Your task to perform on an android device: Open a new incognito tab in the chrome app Image 0: 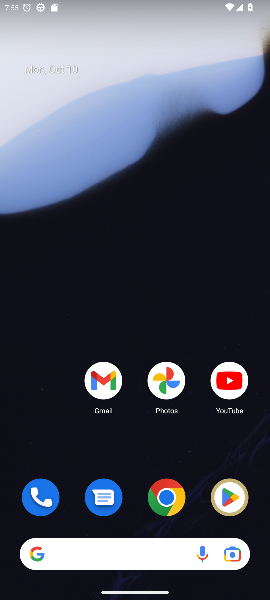
Step 0: drag from (98, 502) to (102, 201)
Your task to perform on an android device: Open a new incognito tab in the chrome app Image 1: 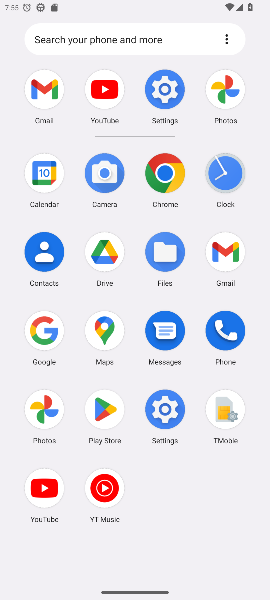
Step 1: click (166, 169)
Your task to perform on an android device: Open a new incognito tab in the chrome app Image 2: 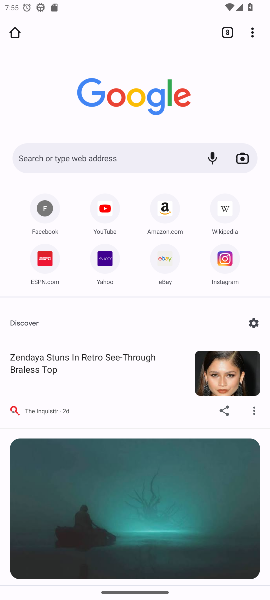
Step 2: click (261, 39)
Your task to perform on an android device: Open a new incognito tab in the chrome app Image 3: 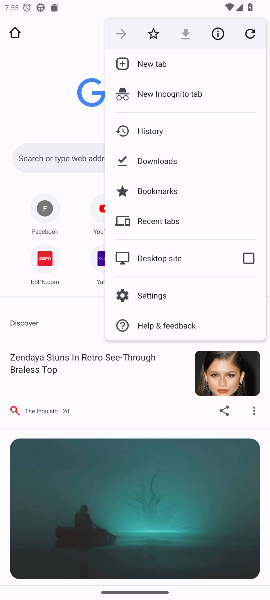
Step 3: click (170, 57)
Your task to perform on an android device: Open a new incognito tab in the chrome app Image 4: 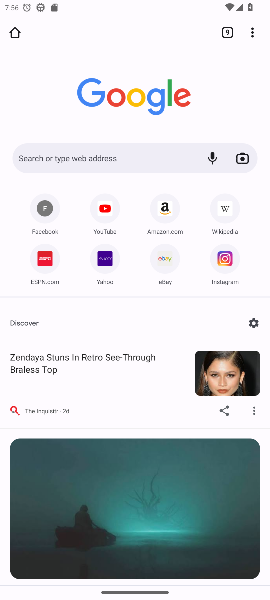
Step 4: task complete